Your task to perform on an android device: uninstall "Lyft - Rideshare, Bikes, Scooters & Transit" Image 0: 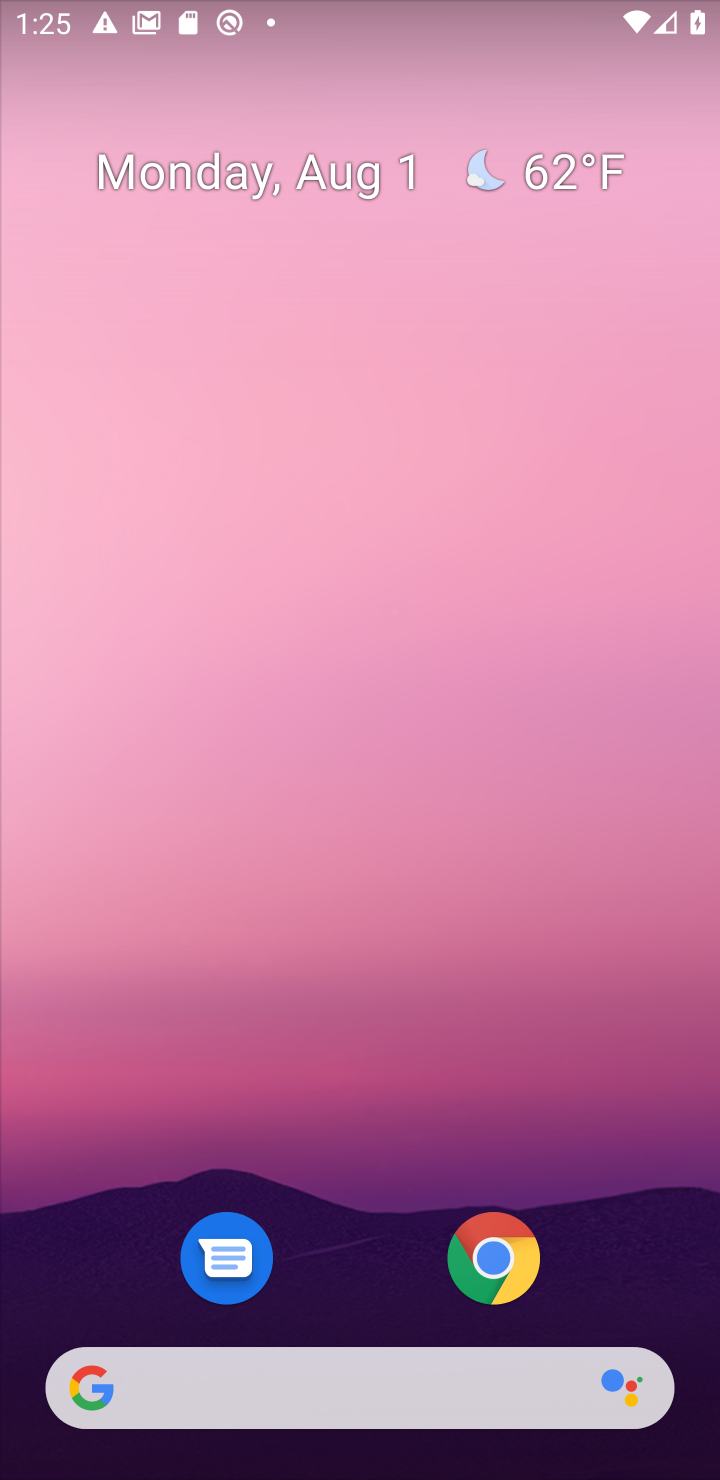
Step 0: drag from (381, 814) to (476, 0)
Your task to perform on an android device: uninstall "Lyft - Rideshare, Bikes, Scooters & Transit" Image 1: 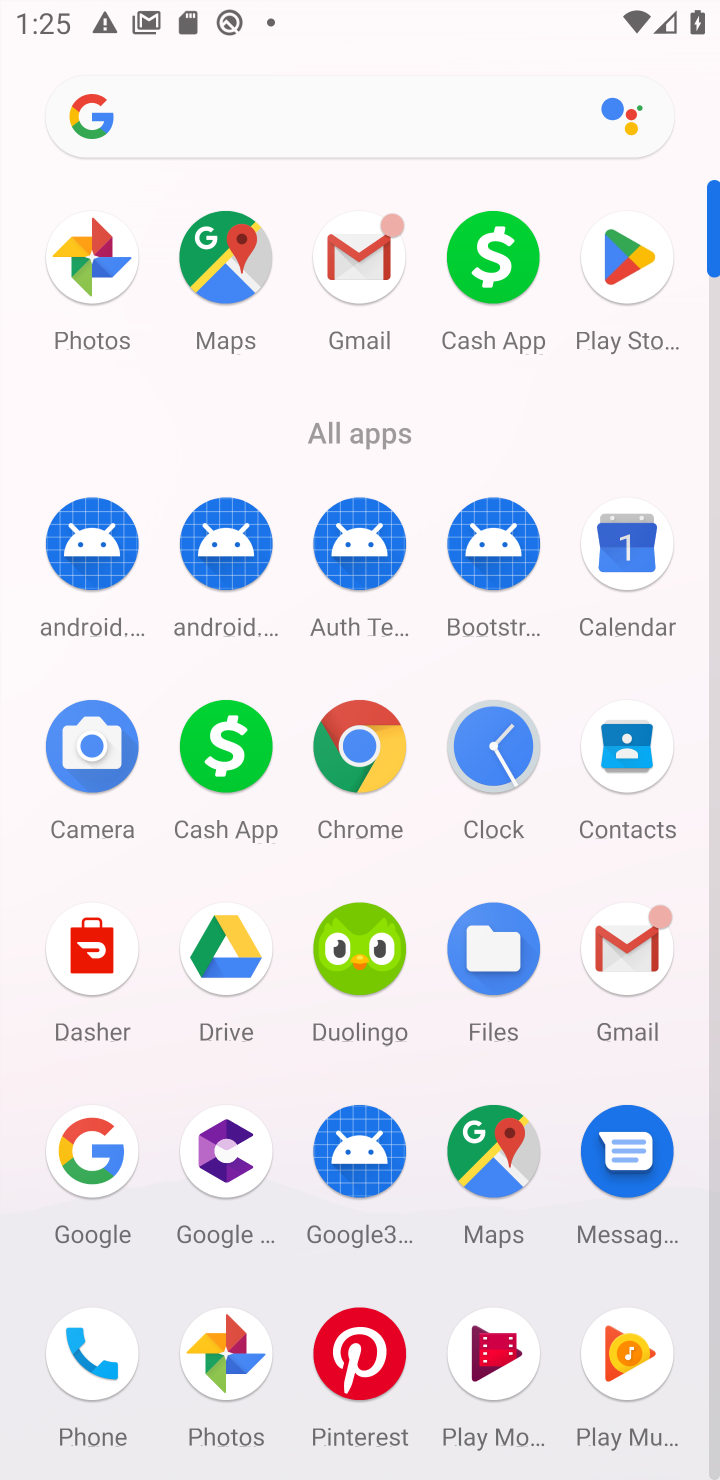
Step 1: click (630, 278)
Your task to perform on an android device: uninstall "Lyft - Rideshare, Bikes, Scooters & Transit" Image 2: 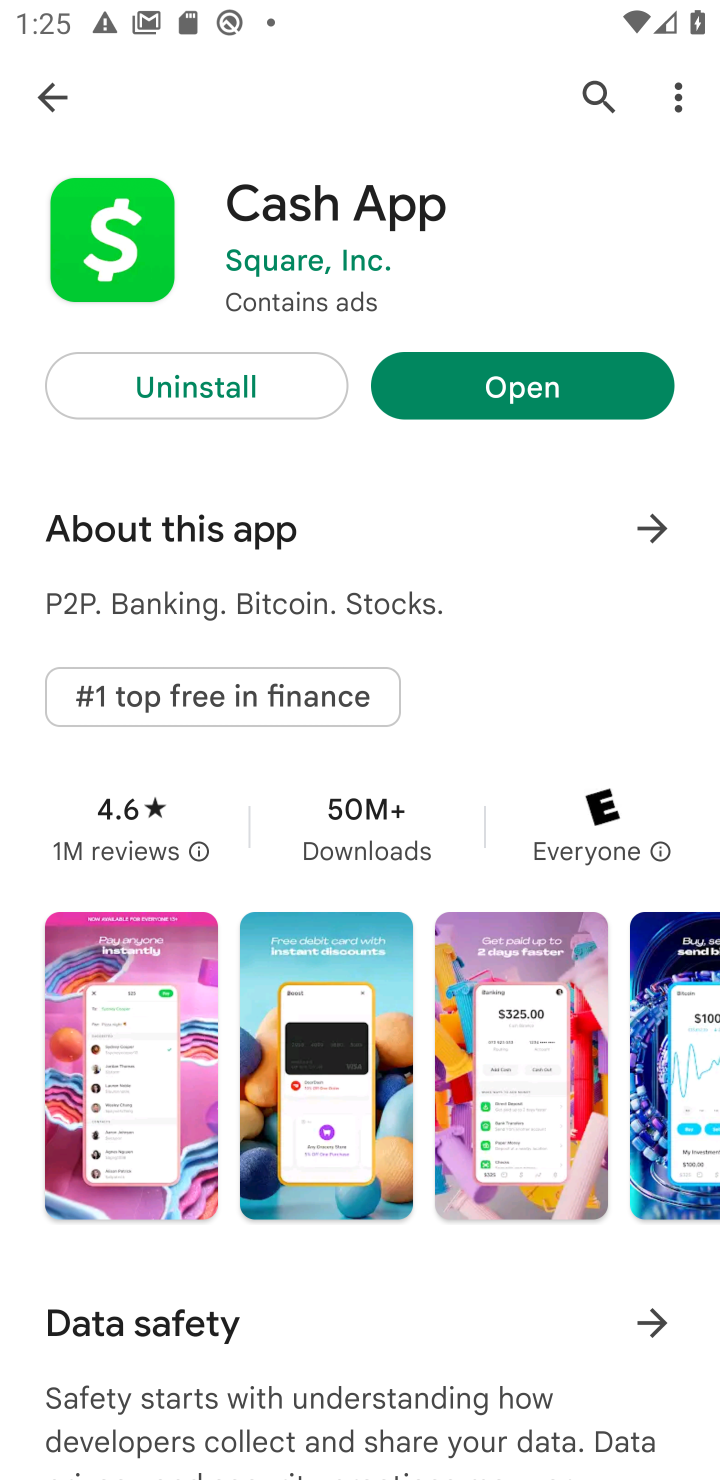
Step 2: click (586, 104)
Your task to perform on an android device: uninstall "Lyft - Rideshare, Bikes, Scooters & Transit" Image 3: 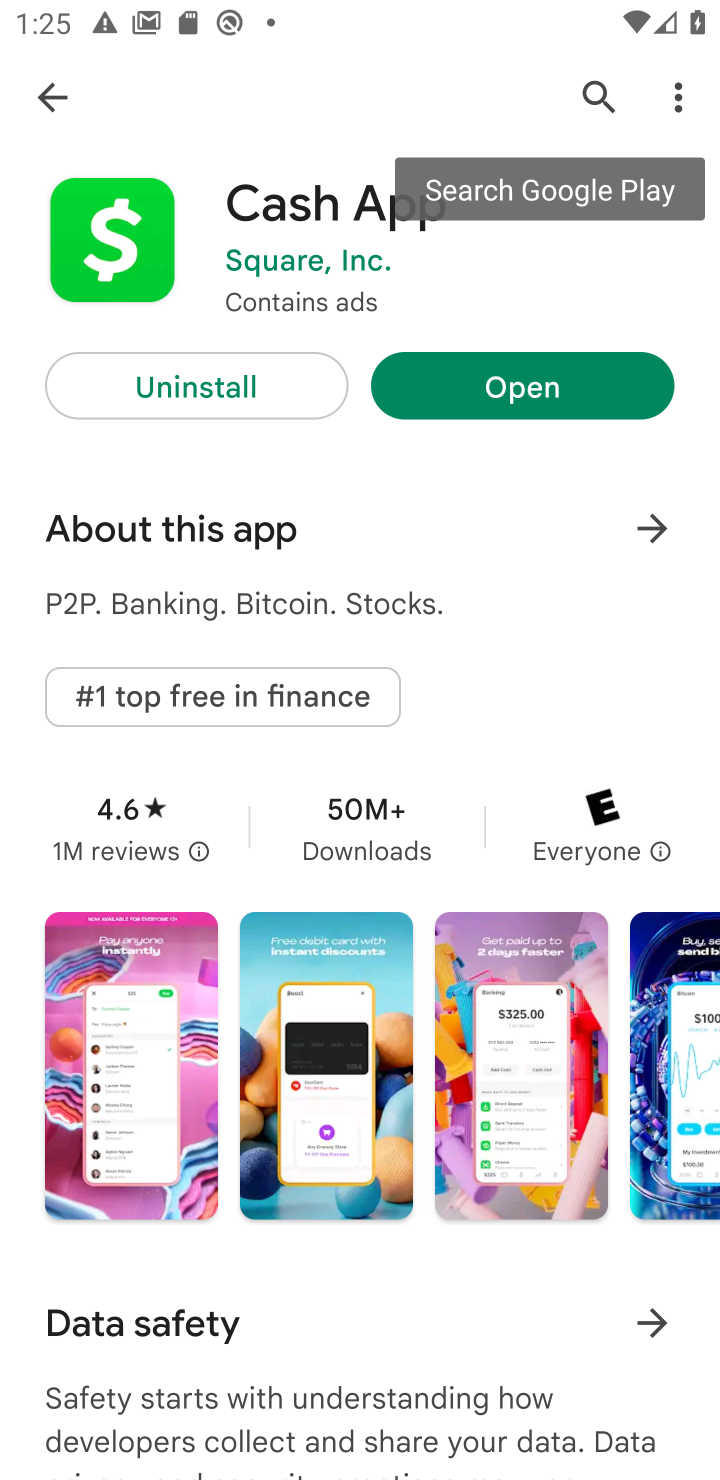
Step 3: click (600, 87)
Your task to perform on an android device: uninstall "Lyft - Rideshare, Bikes, Scooters & Transit" Image 4: 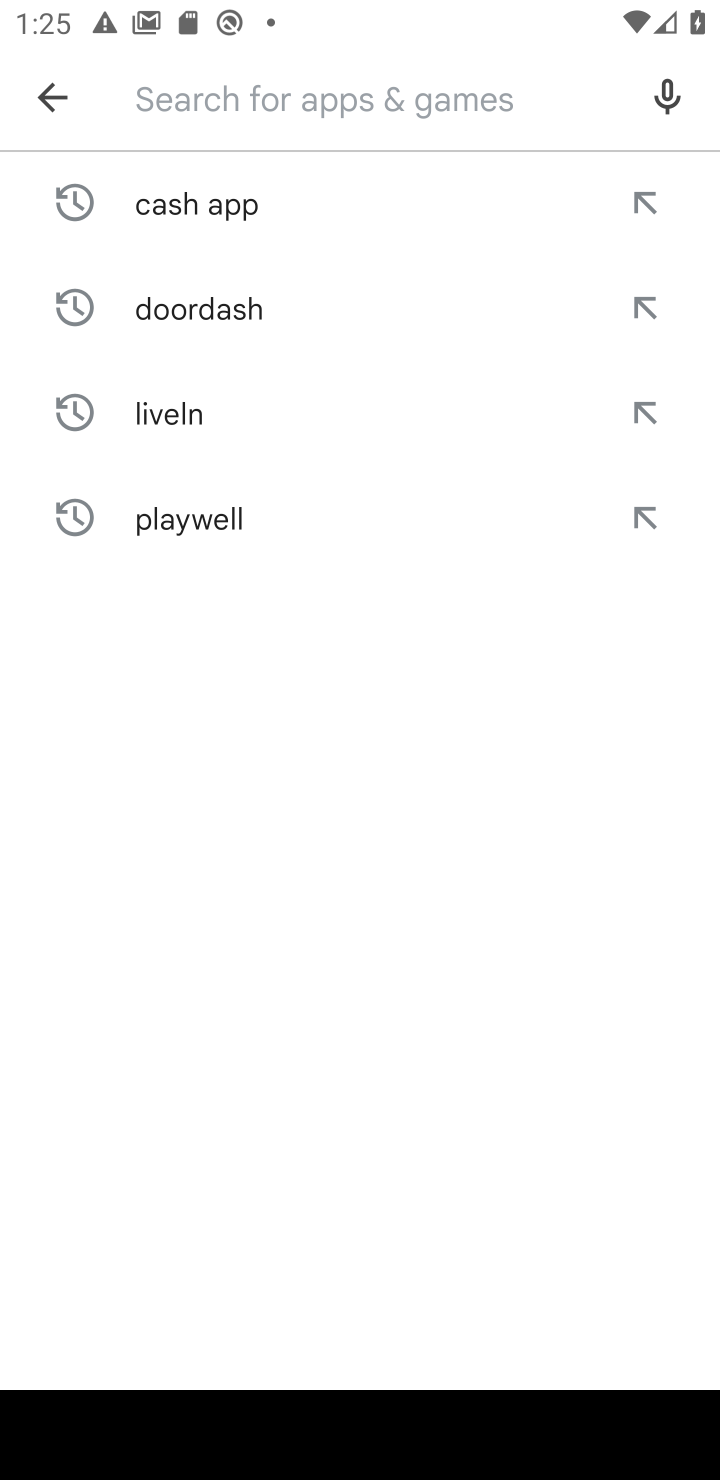
Step 4: click (265, 108)
Your task to perform on an android device: uninstall "Lyft - Rideshare, Bikes, Scooters & Transit" Image 5: 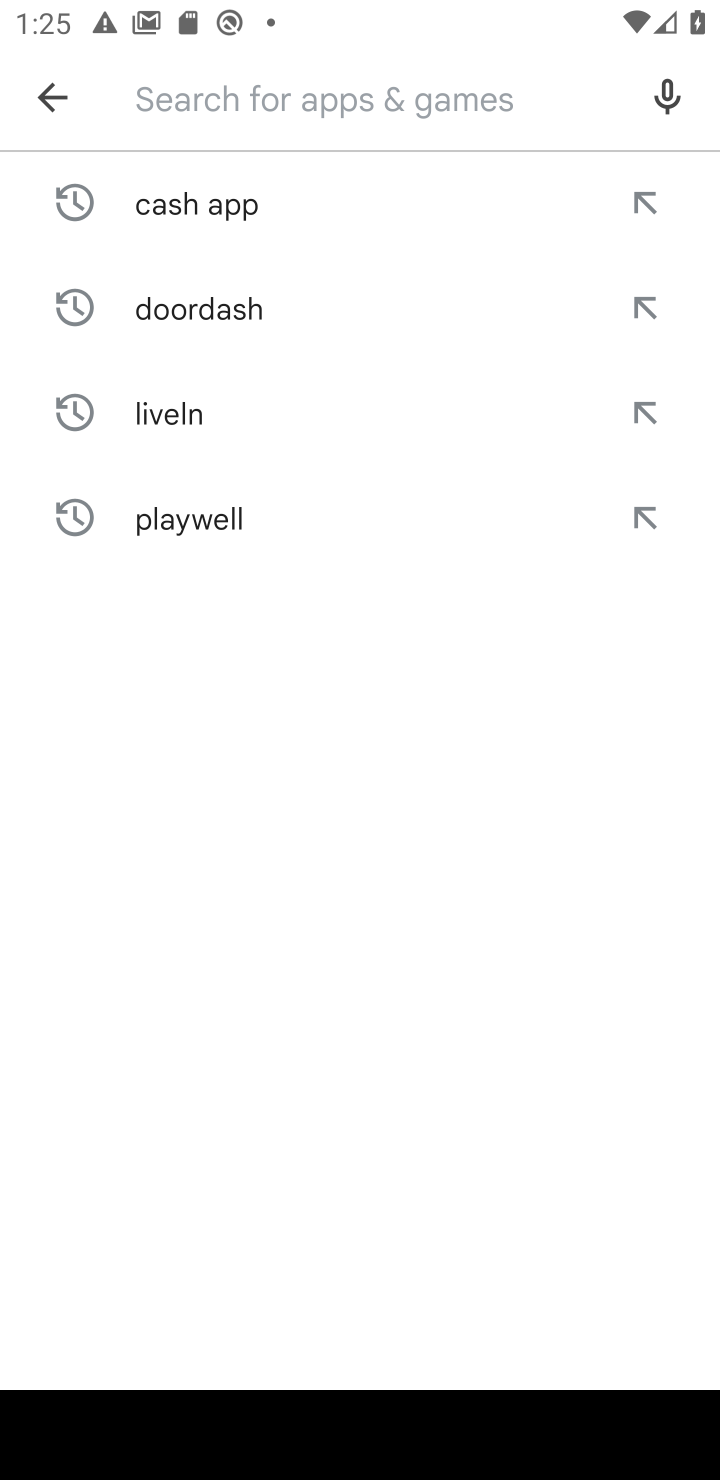
Step 5: type "lyft"
Your task to perform on an android device: uninstall "Lyft - Rideshare, Bikes, Scooters & Transit" Image 6: 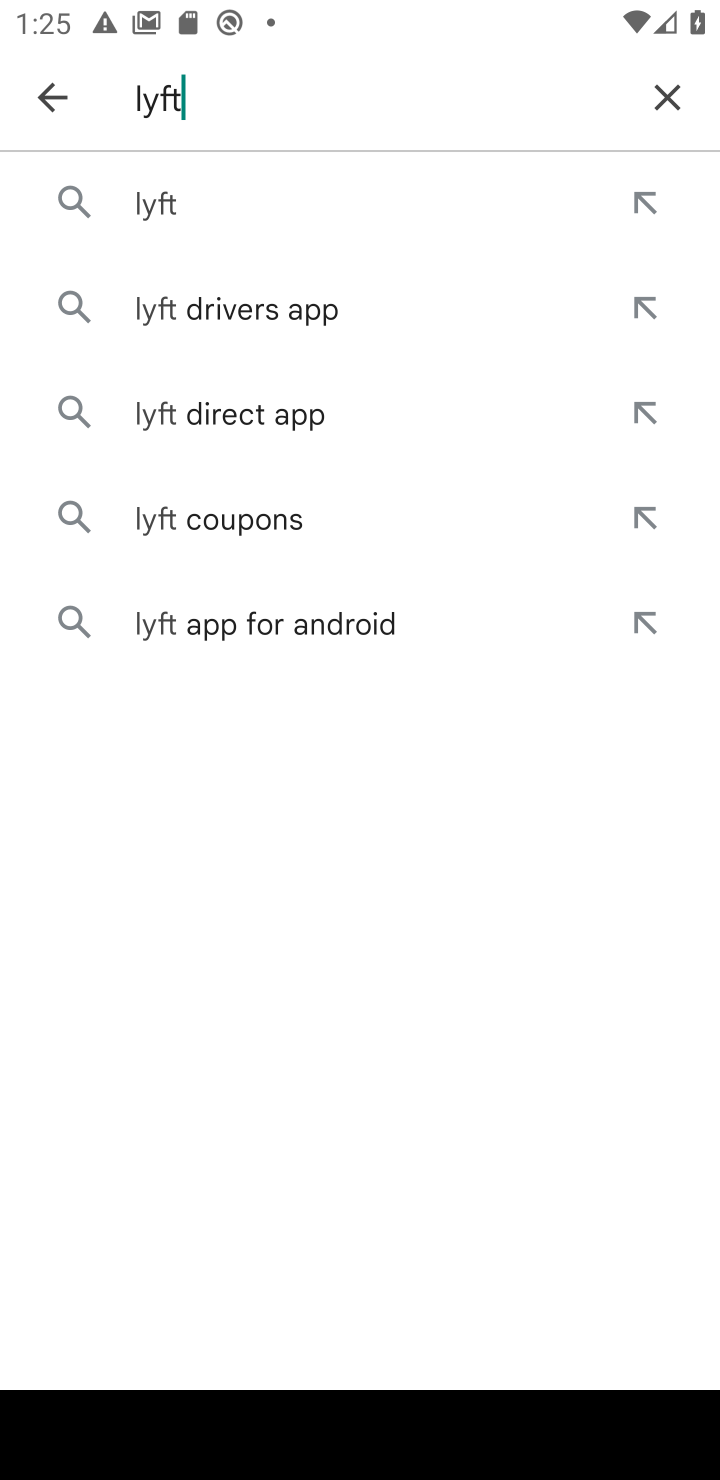
Step 6: click (204, 172)
Your task to perform on an android device: uninstall "Lyft - Rideshare, Bikes, Scooters & Transit" Image 7: 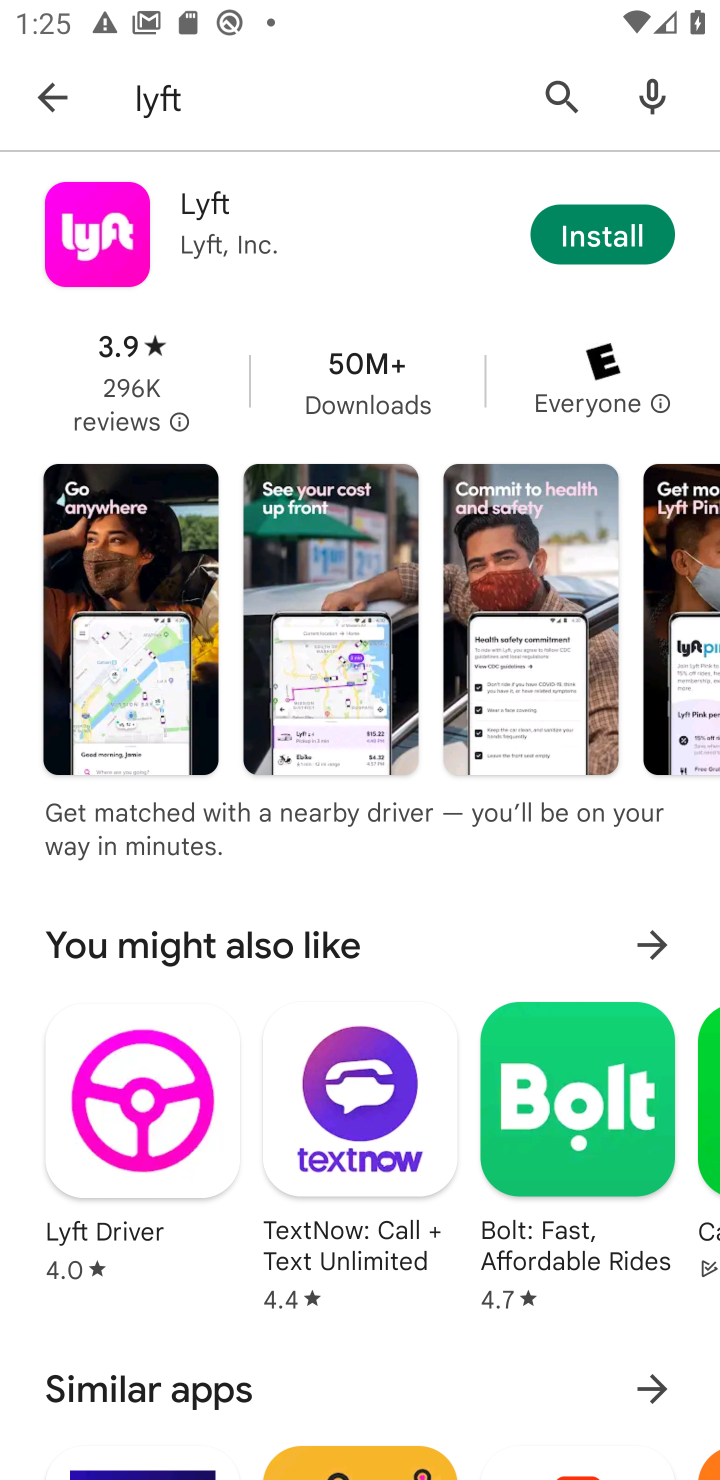
Step 7: task complete